Your task to perform on an android device: Open calendar and show me the fourth week of next month Image 0: 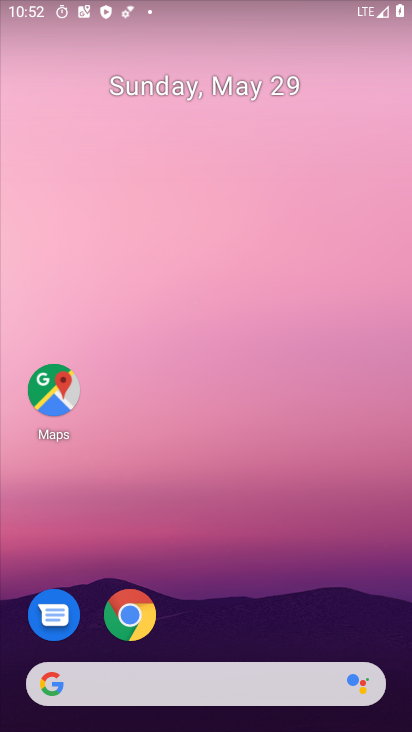
Step 0: drag from (369, 637) to (392, 322)
Your task to perform on an android device: Open calendar and show me the fourth week of next month Image 1: 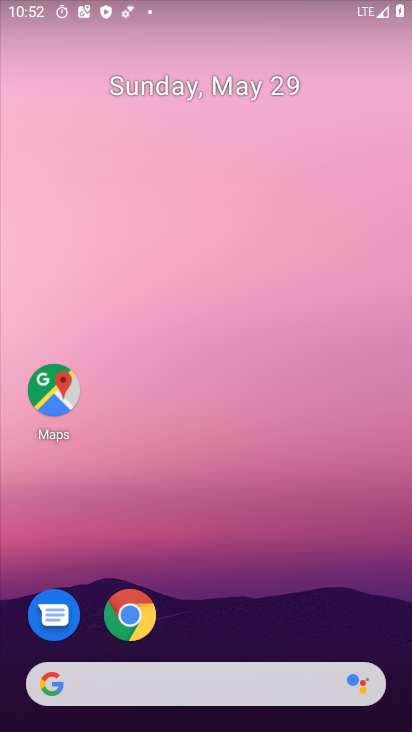
Step 1: drag from (373, 612) to (408, 215)
Your task to perform on an android device: Open calendar and show me the fourth week of next month Image 2: 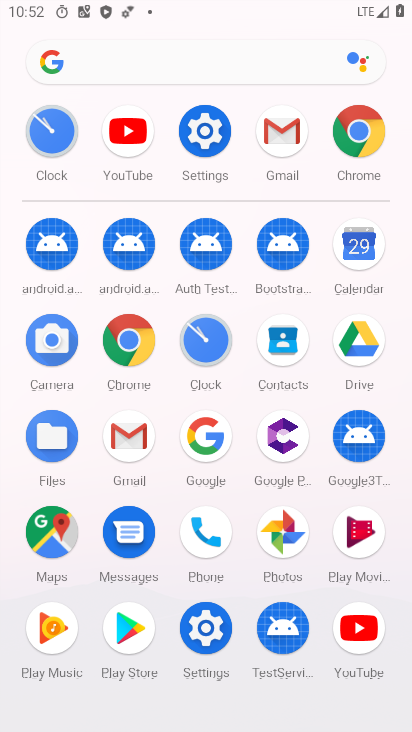
Step 2: click (358, 270)
Your task to perform on an android device: Open calendar and show me the fourth week of next month Image 3: 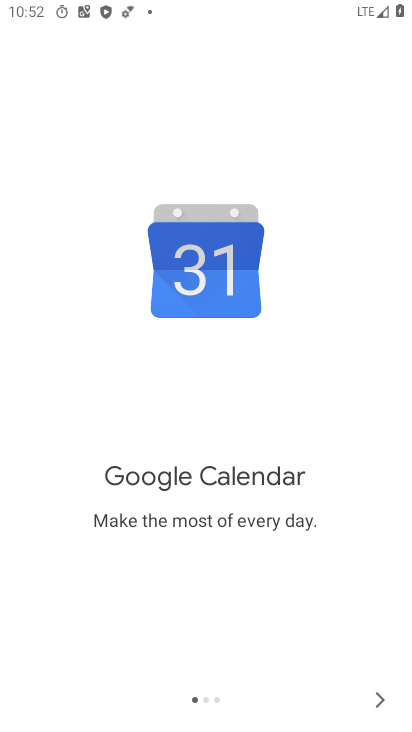
Step 3: click (376, 702)
Your task to perform on an android device: Open calendar and show me the fourth week of next month Image 4: 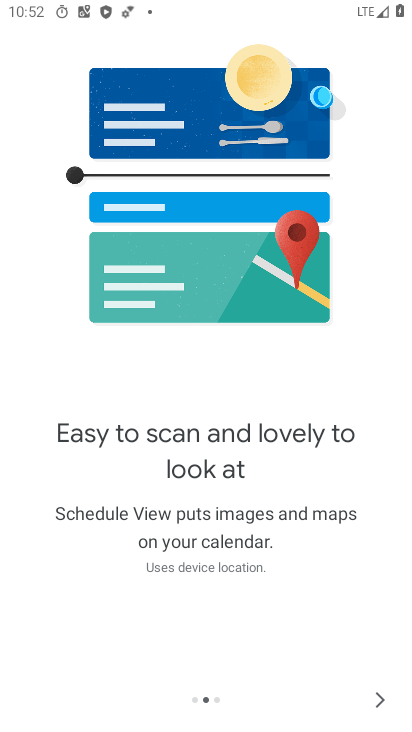
Step 4: click (380, 700)
Your task to perform on an android device: Open calendar and show me the fourth week of next month Image 5: 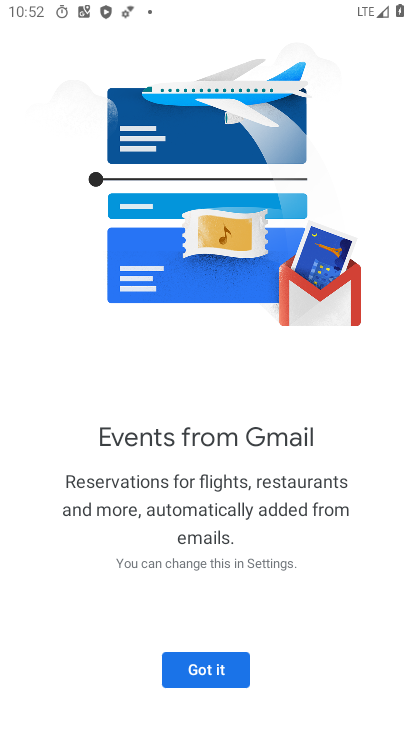
Step 5: click (212, 683)
Your task to perform on an android device: Open calendar and show me the fourth week of next month Image 6: 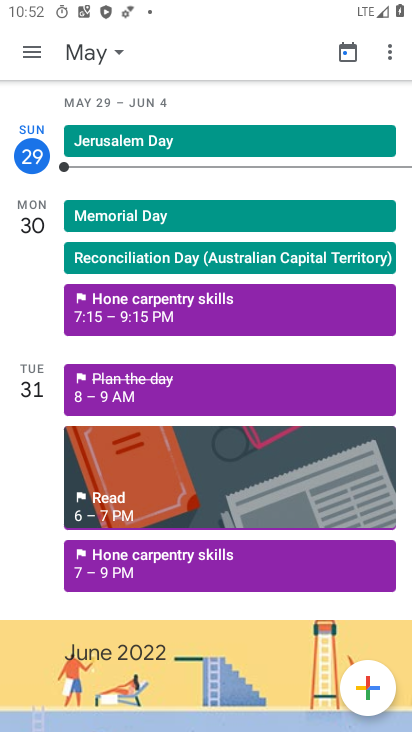
Step 6: click (109, 46)
Your task to perform on an android device: Open calendar and show me the fourth week of next month Image 7: 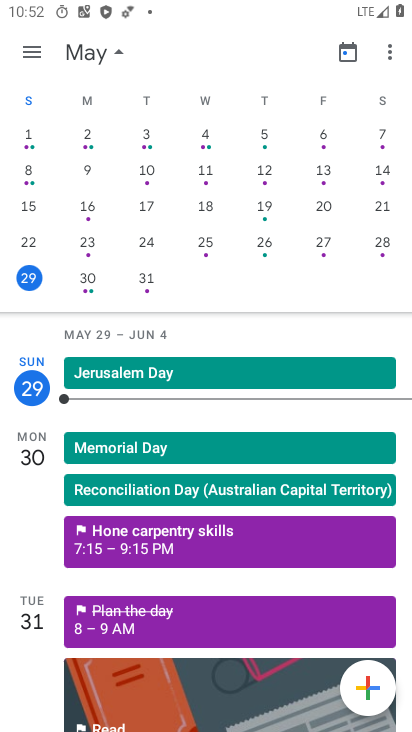
Step 7: drag from (402, 153) to (30, 134)
Your task to perform on an android device: Open calendar and show me the fourth week of next month Image 8: 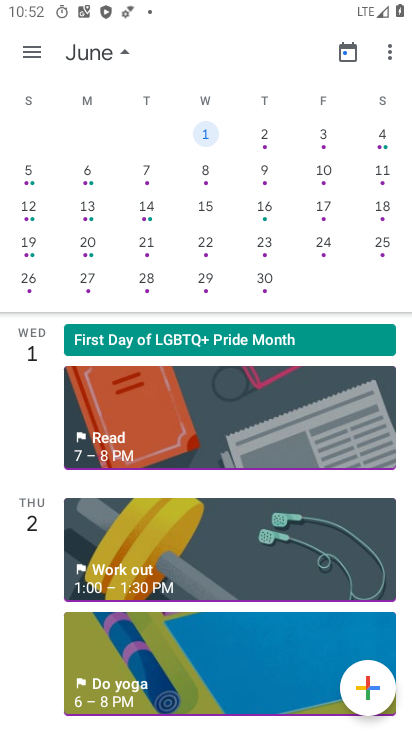
Step 8: click (89, 248)
Your task to perform on an android device: Open calendar and show me the fourth week of next month Image 9: 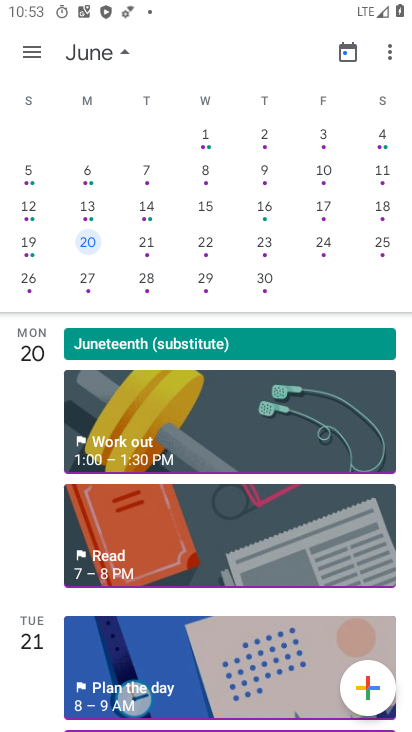
Step 9: task complete